Your task to perform on an android device: Open the Play Movies app and select the watchlist tab. Image 0: 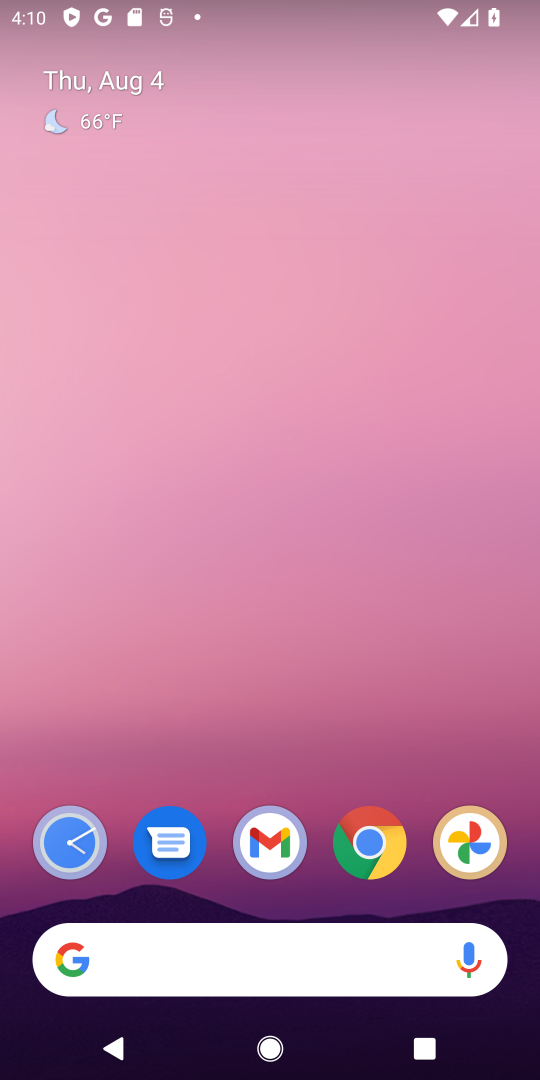
Step 0: drag from (327, 796) to (328, 189)
Your task to perform on an android device: Open the Play Movies app and select the watchlist tab. Image 1: 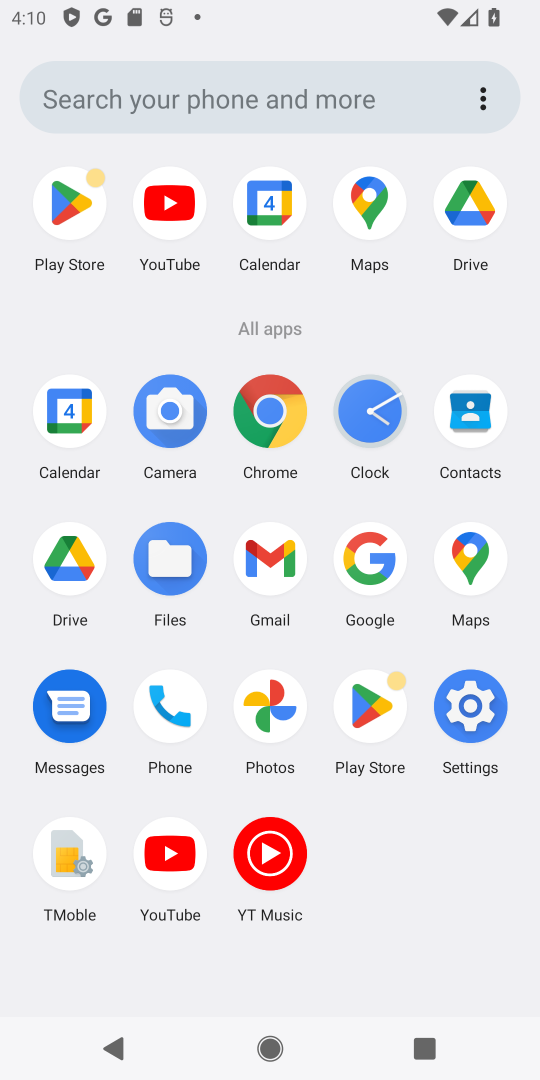
Step 1: task complete